Your task to perform on an android device: Go to display settings Image 0: 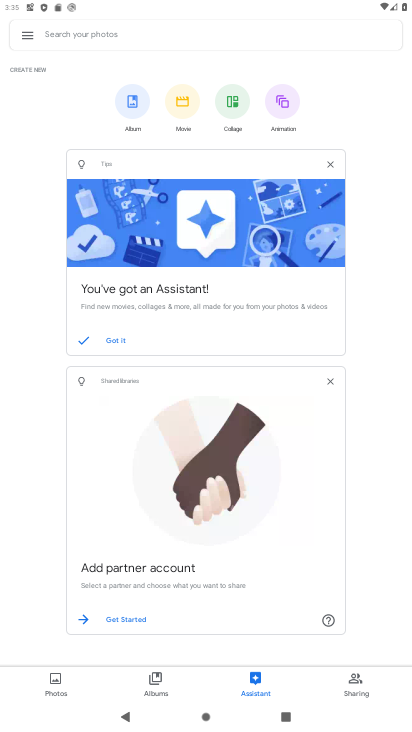
Step 0: press home button
Your task to perform on an android device: Go to display settings Image 1: 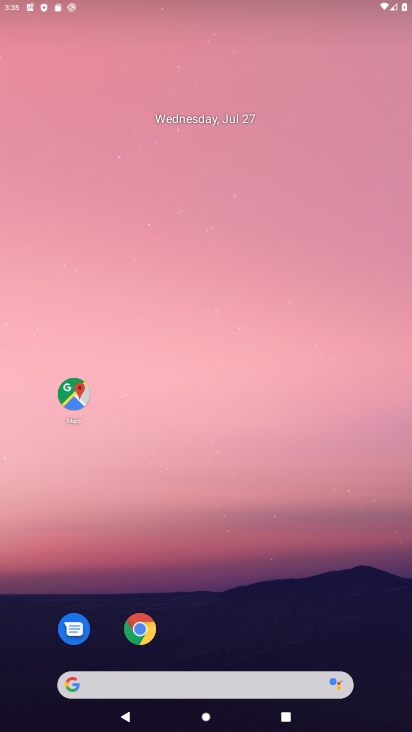
Step 1: drag from (370, 599) to (288, 35)
Your task to perform on an android device: Go to display settings Image 2: 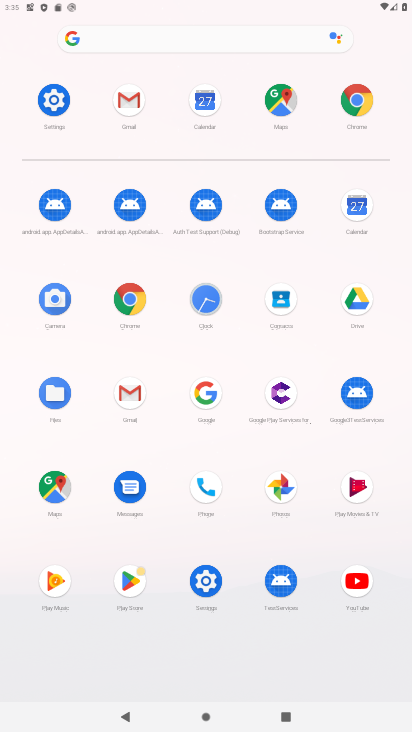
Step 2: click (54, 98)
Your task to perform on an android device: Go to display settings Image 3: 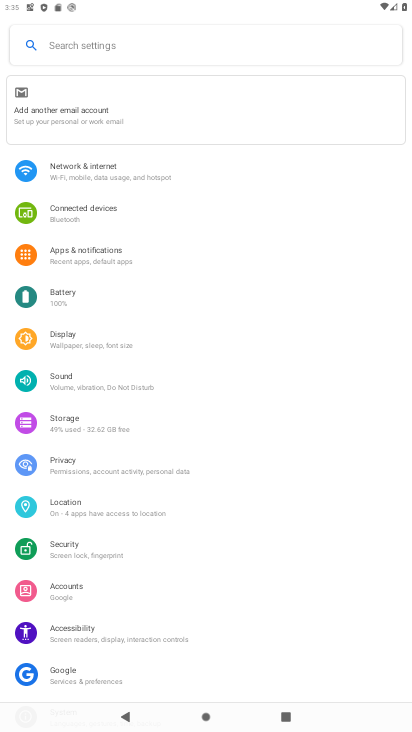
Step 3: click (75, 343)
Your task to perform on an android device: Go to display settings Image 4: 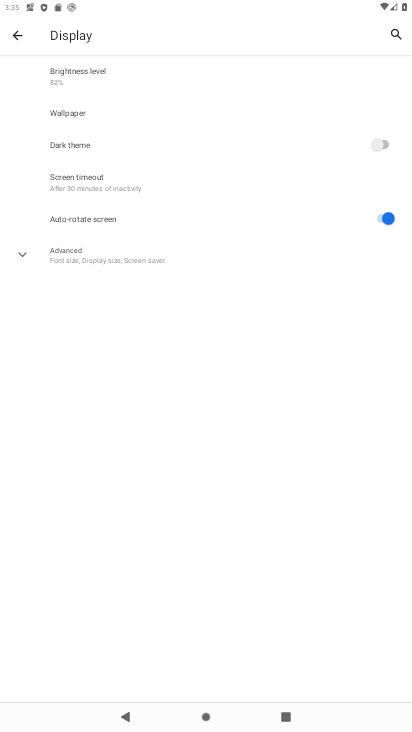
Step 4: task complete